Your task to perform on an android device: delete the emails in spam in the gmail app Image 0: 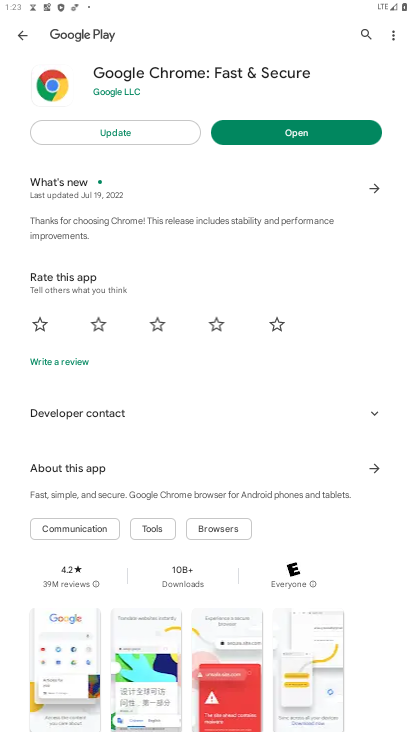
Step 0: press home button
Your task to perform on an android device: delete the emails in spam in the gmail app Image 1: 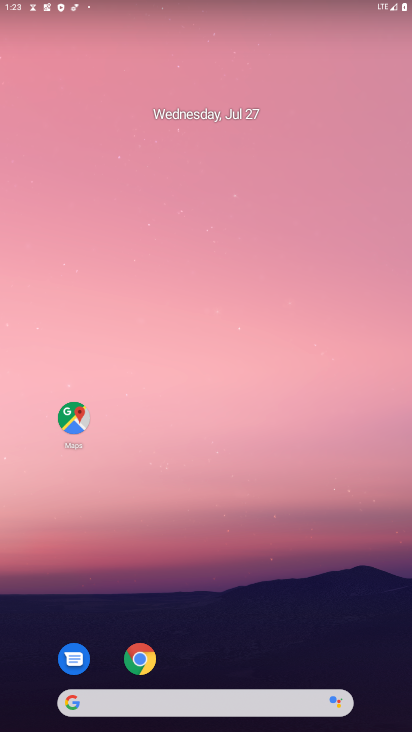
Step 1: drag from (231, 727) to (304, 19)
Your task to perform on an android device: delete the emails in spam in the gmail app Image 2: 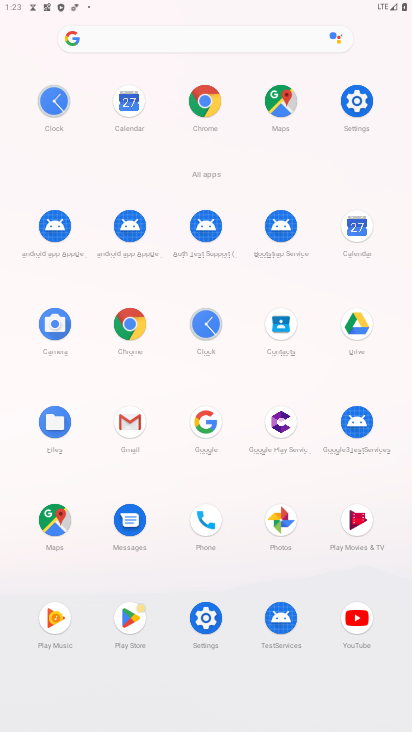
Step 2: click (129, 418)
Your task to perform on an android device: delete the emails in spam in the gmail app Image 3: 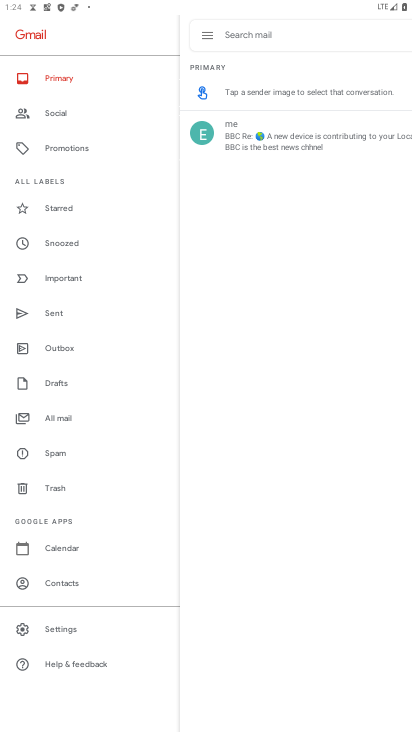
Step 3: click (52, 450)
Your task to perform on an android device: delete the emails in spam in the gmail app Image 4: 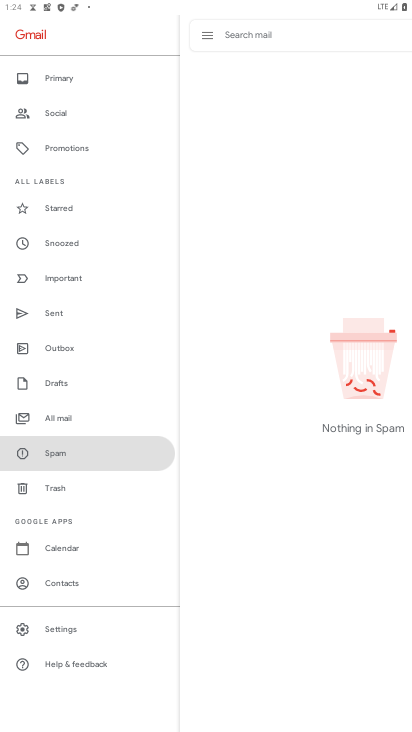
Step 4: task complete